Your task to perform on an android device: uninstall "Calculator" Image 0: 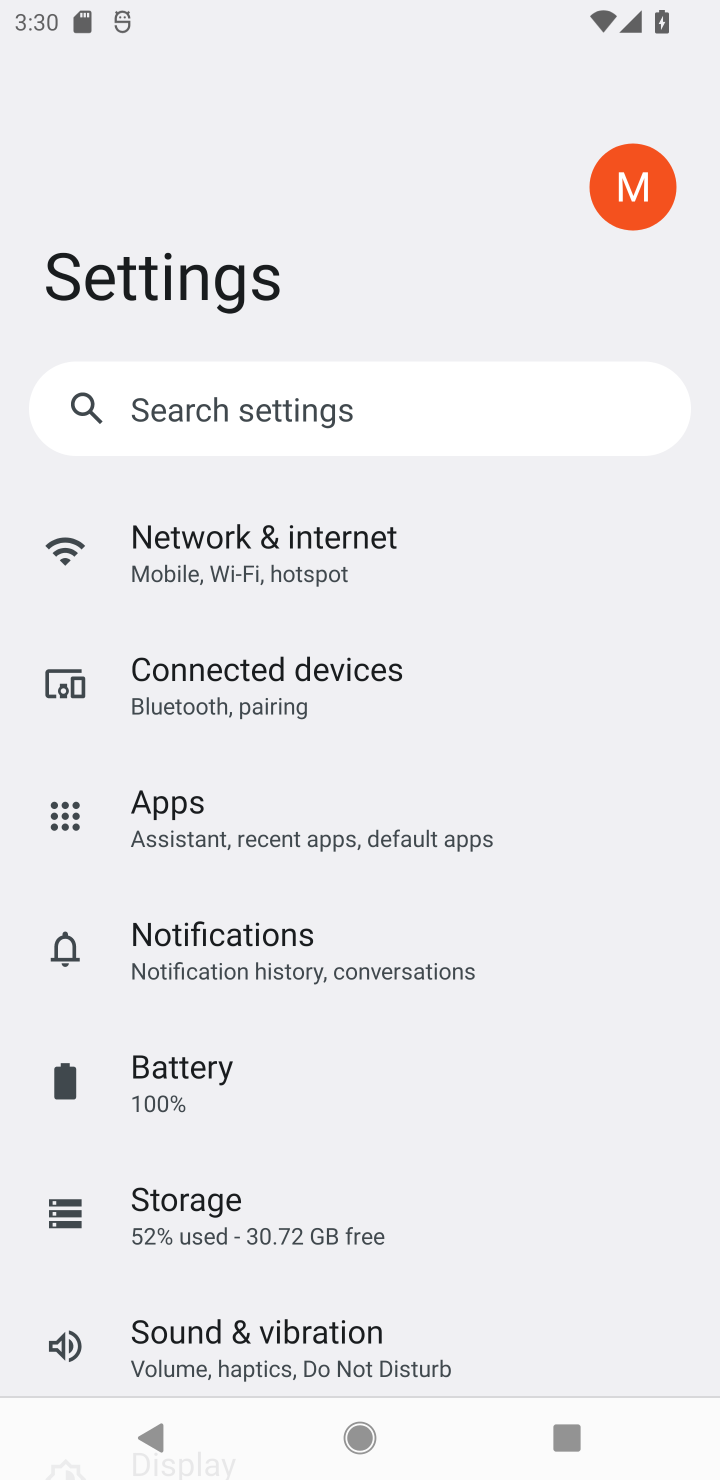
Step 0: press home button
Your task to perform on an android device: uninstall "Calculator" Image 1: 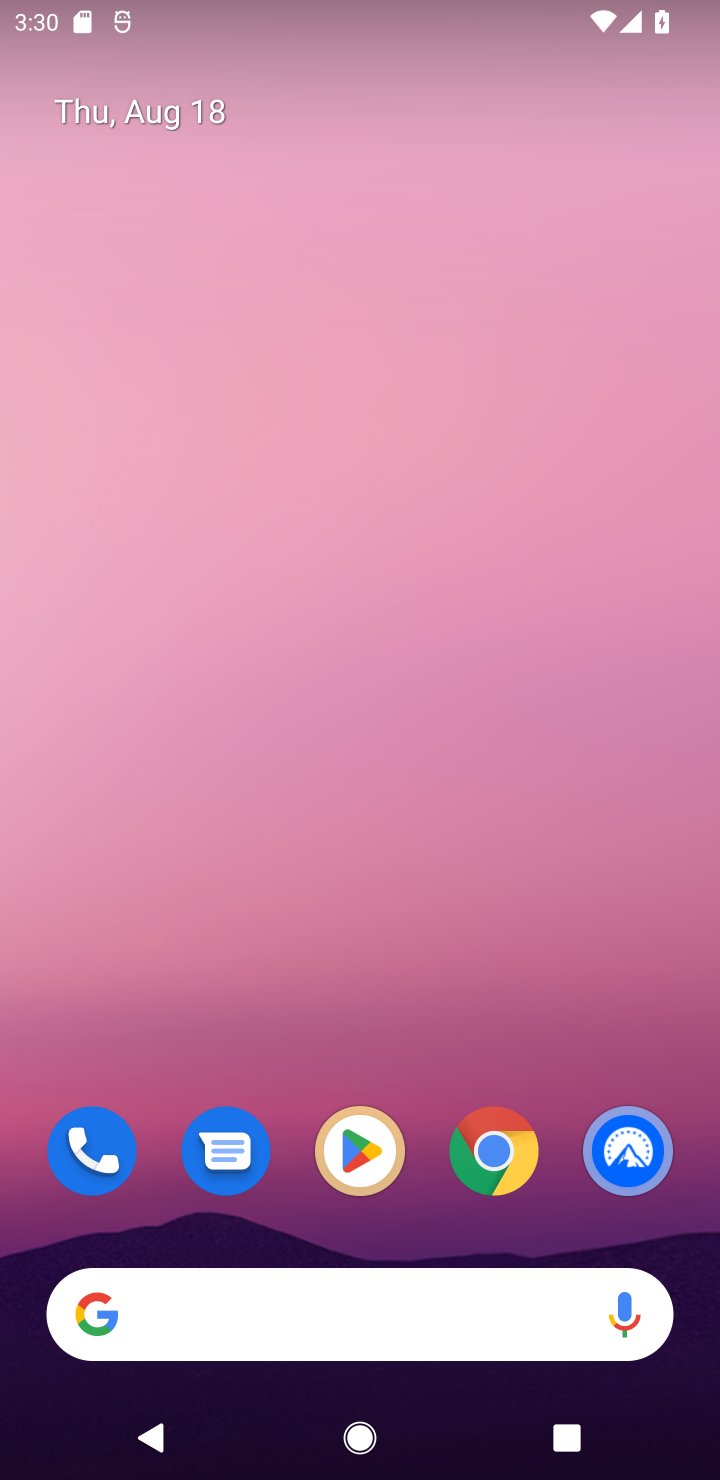
Step 1: drag from (415, 1207) to (405, 225)
Your task to perform on an android device: uninstall "Calculator" Image 2: 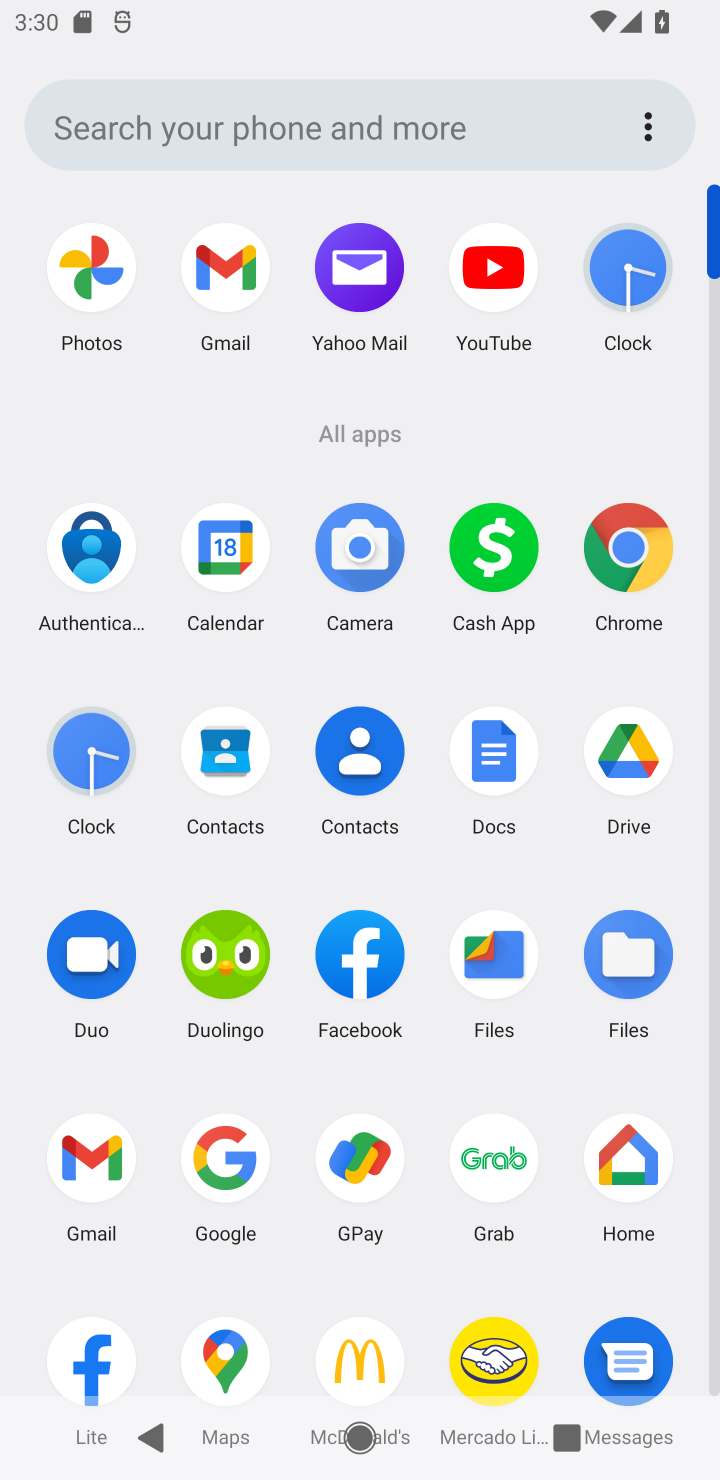
Step 2: click (240, 604)
Your task to perform on an android device: uninstall "Calculator" Image 3: 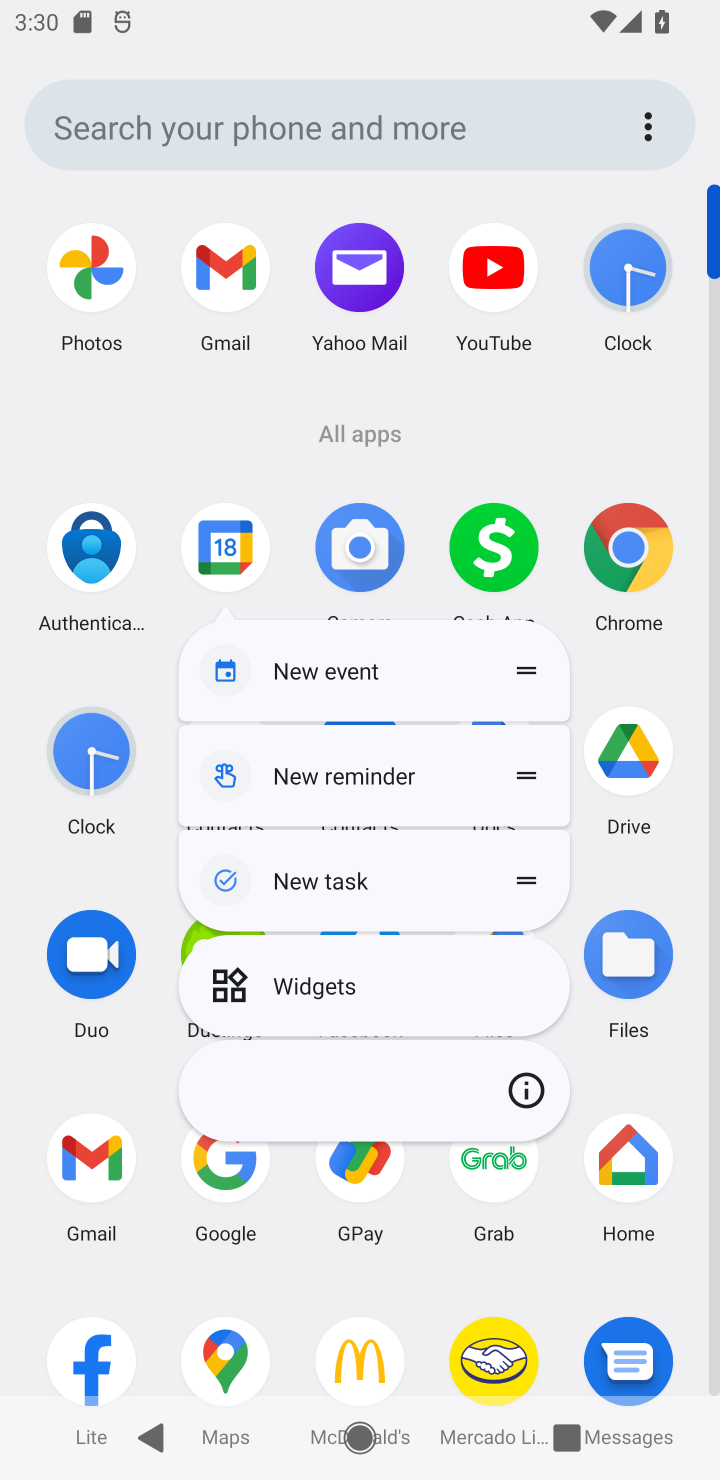
Step 3: click (543, 1116)
Your task to perform on an android device: uninstall "Calculator" Image 4: 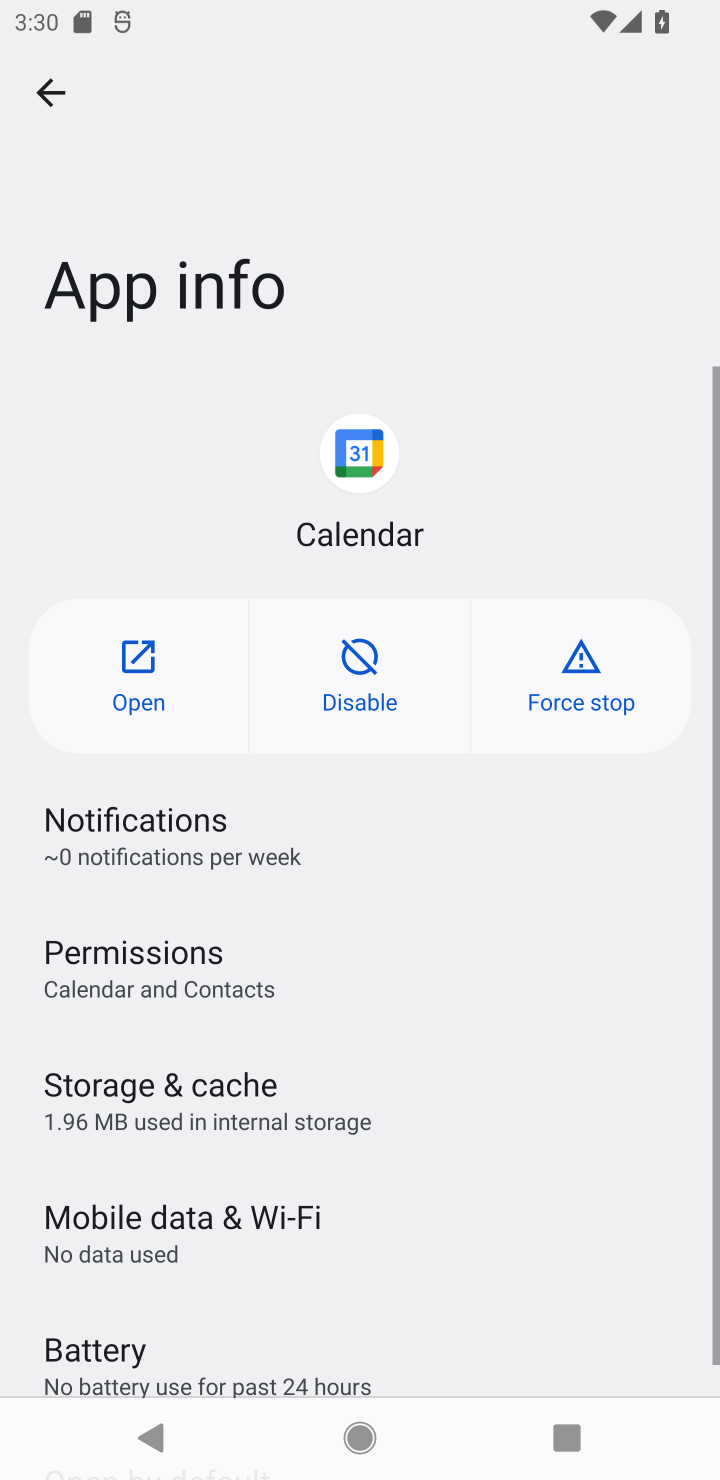
Step 4: task complete